Your task to perform on an android device: delete location history Image 0: 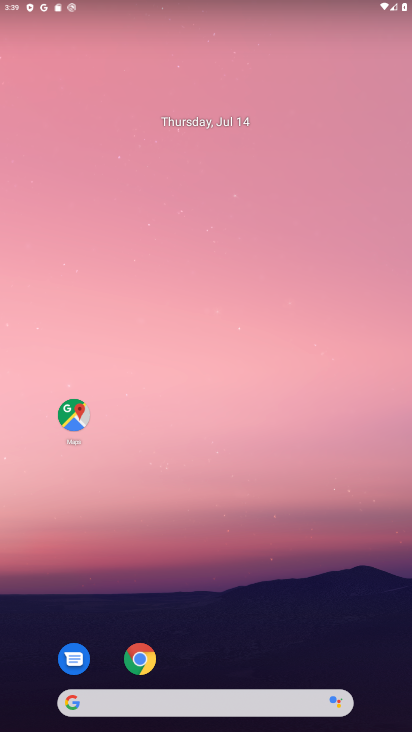
Step 0: drag from (358, 628) to (352, 168)
Your task to perform on an android device: delete location history Image 1: 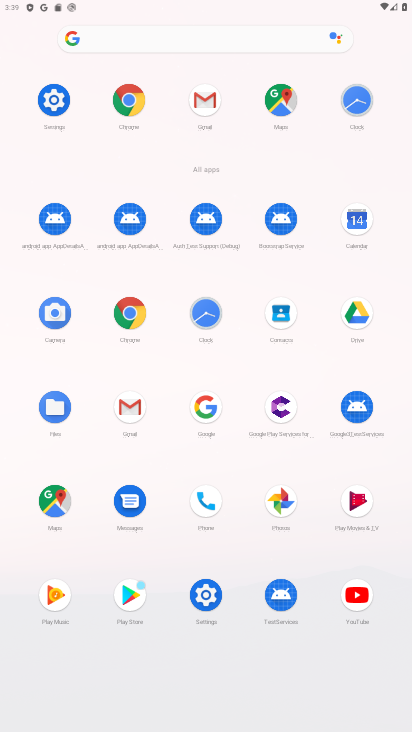
Step 1: click (60, 503)
Your task to perform on an android device: delete location history Image 2: 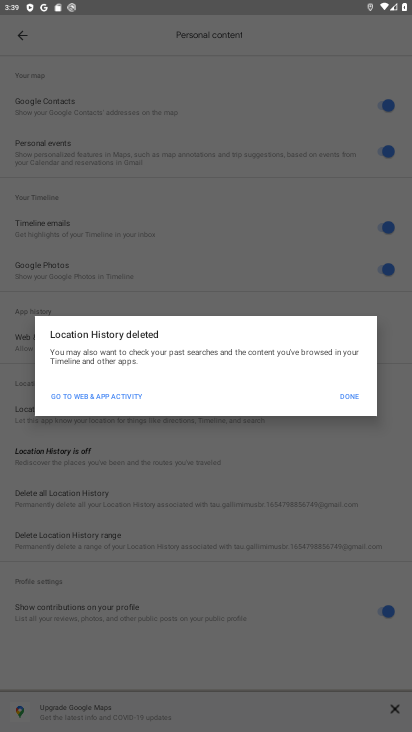
Step 2: click (348, 391)
Your task to perform on an android device: delete location history Image 3: 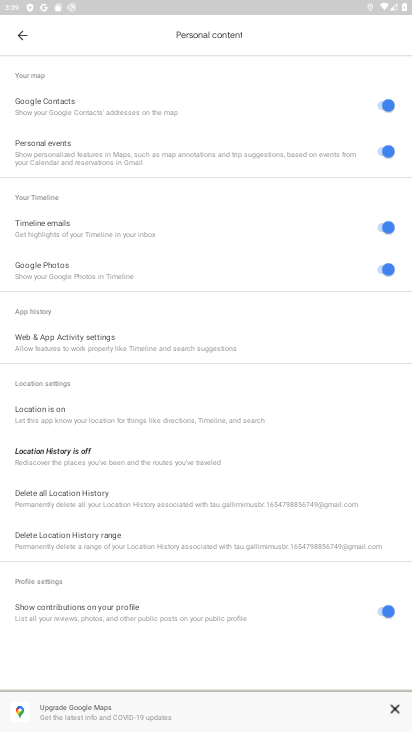
Step 3: press back button
Your task to perform on an android device: delete location history Image 4: 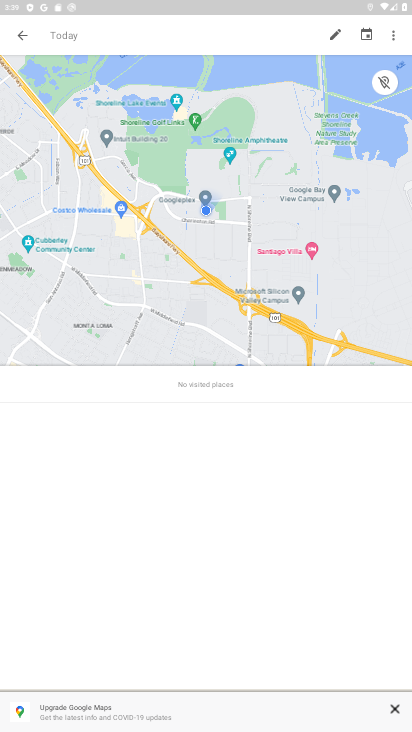
Step 4: click (390, 33)
Your task to perform on an android device: delete location history Image 5: 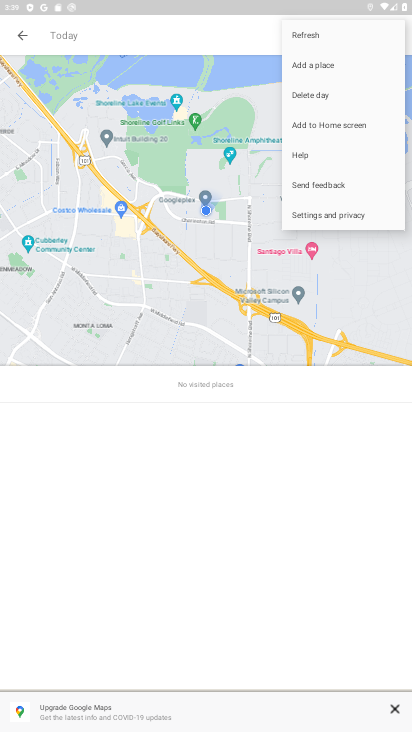
Step 5: click (348, 205)
Your task to perform on an android device: delete location history Image 6: 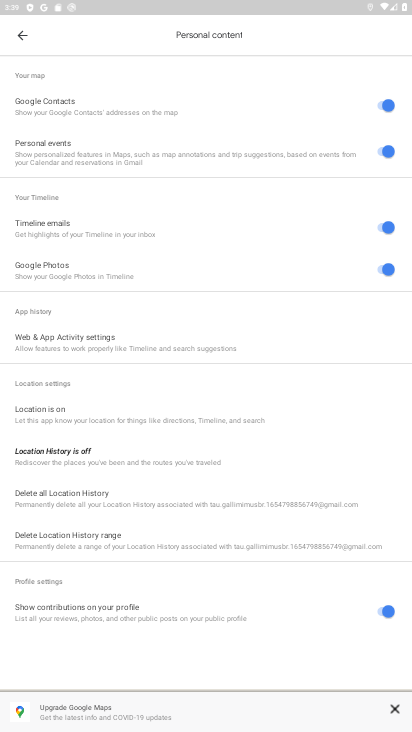
Step 6: drag from (305, 454) to (303, 383)
Your task to perform on an android device: delete location history Image 7: 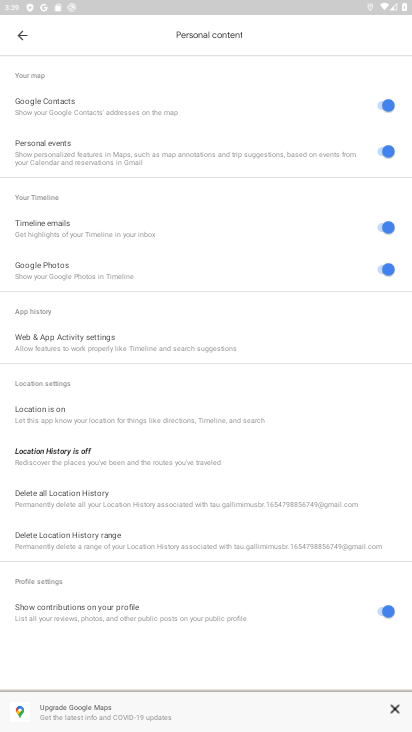
Step 7: click (290, 502)
Your task to perform on an android device: delete location history Image 8: 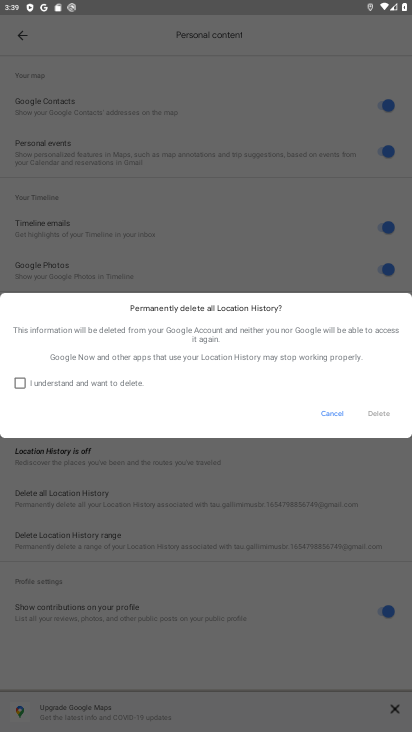
Step 8: click (16, 386)
Your task to perform on an android device: delete location history Image 9: 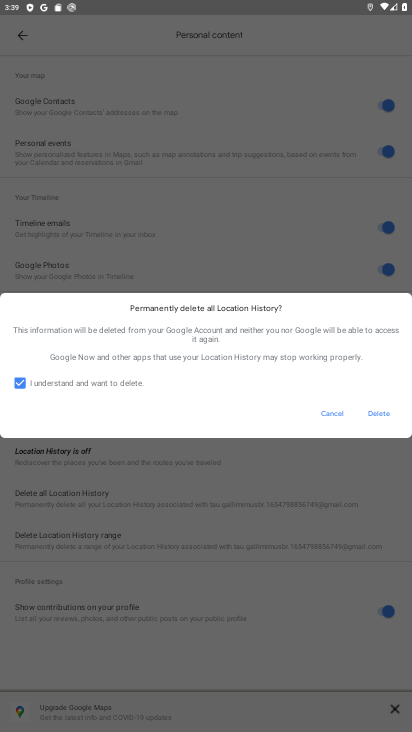
Step 9: click (375, 405)
Your task to perform on an android device: delete location history Image 10: 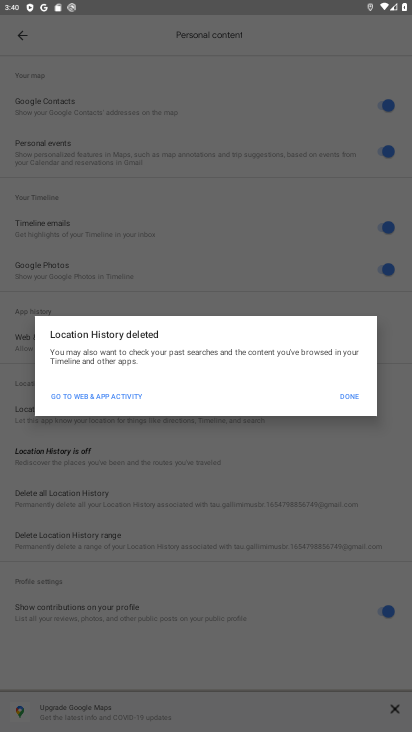
Step 10: task complete